Your task to perform on an android device: Open wifi settings Image 0: 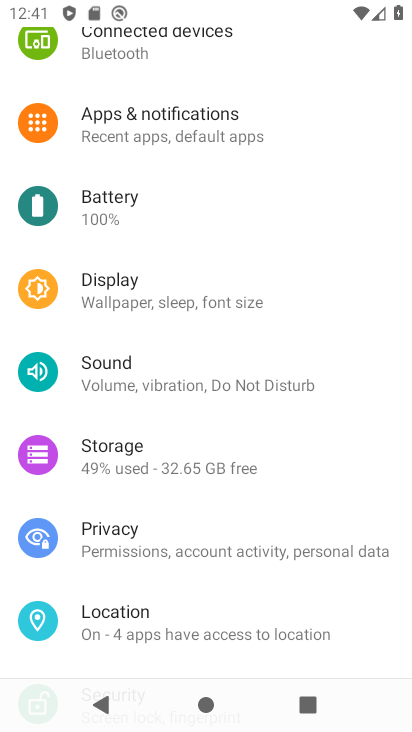
Step 0: drag from (297, 8) to (200, 414)
Your task to perform on an android device: Open wifi settings Image 1: 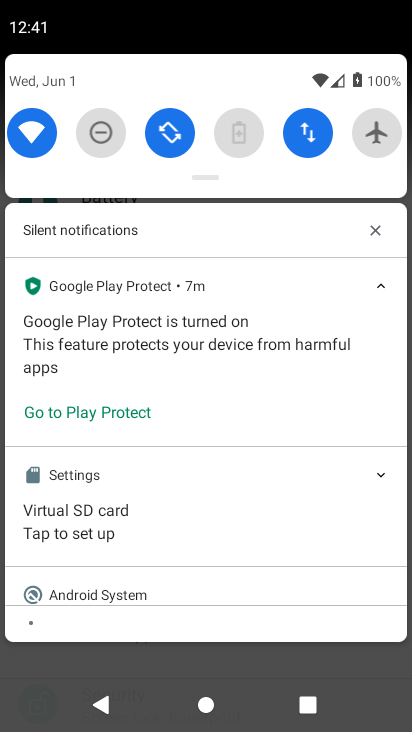
Step 1: click (33, 145)
Your task to perform on an android device: Open wifi settings Image 2: 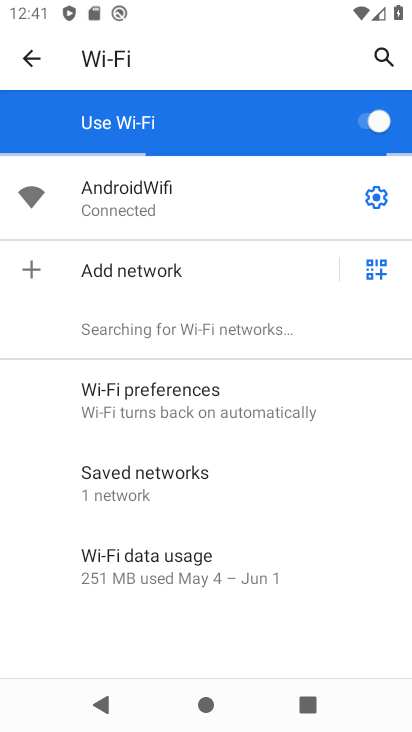
Step 2: task complete